Your task to perform on an android device: toggle notification dots Image 0: 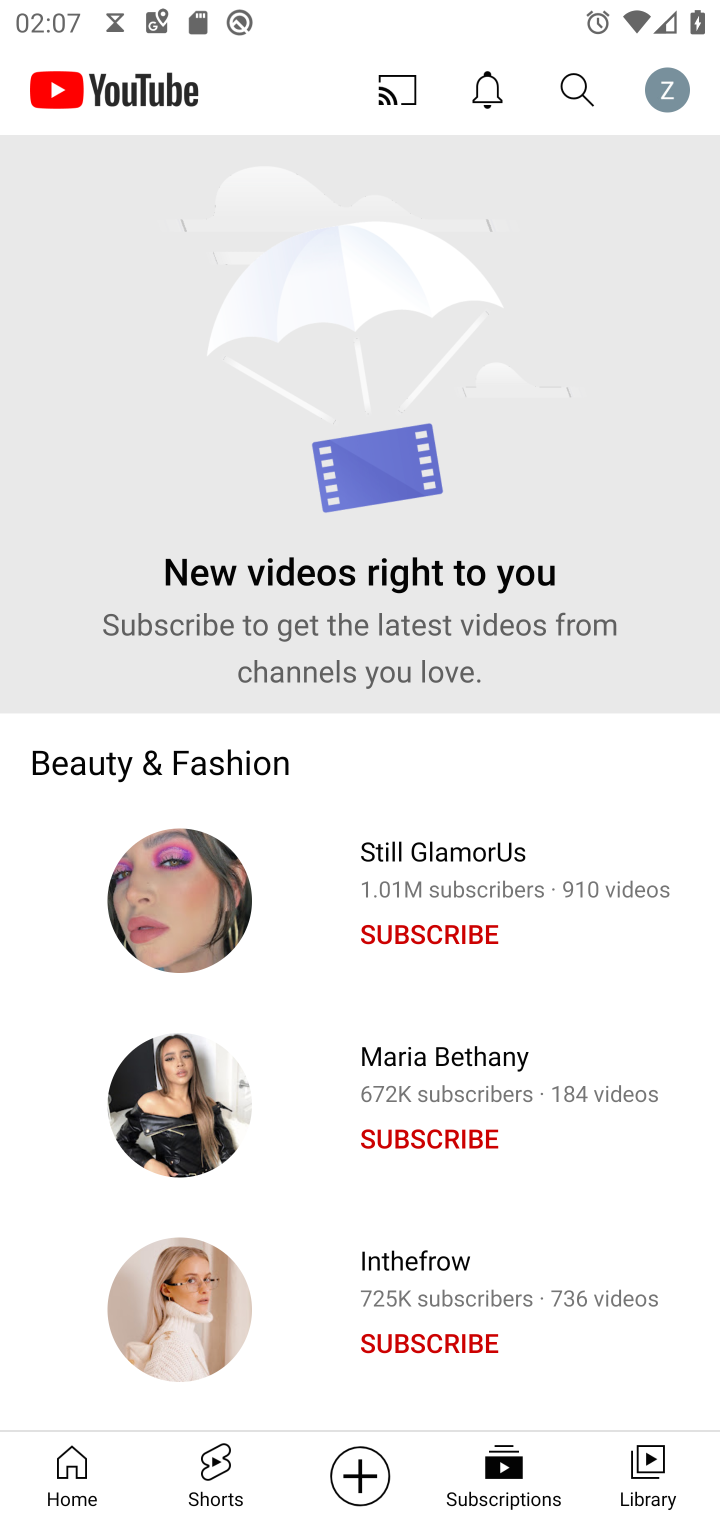
Step 0: press home button
Your task to perform on an android device: toggle notification dots Image 1: 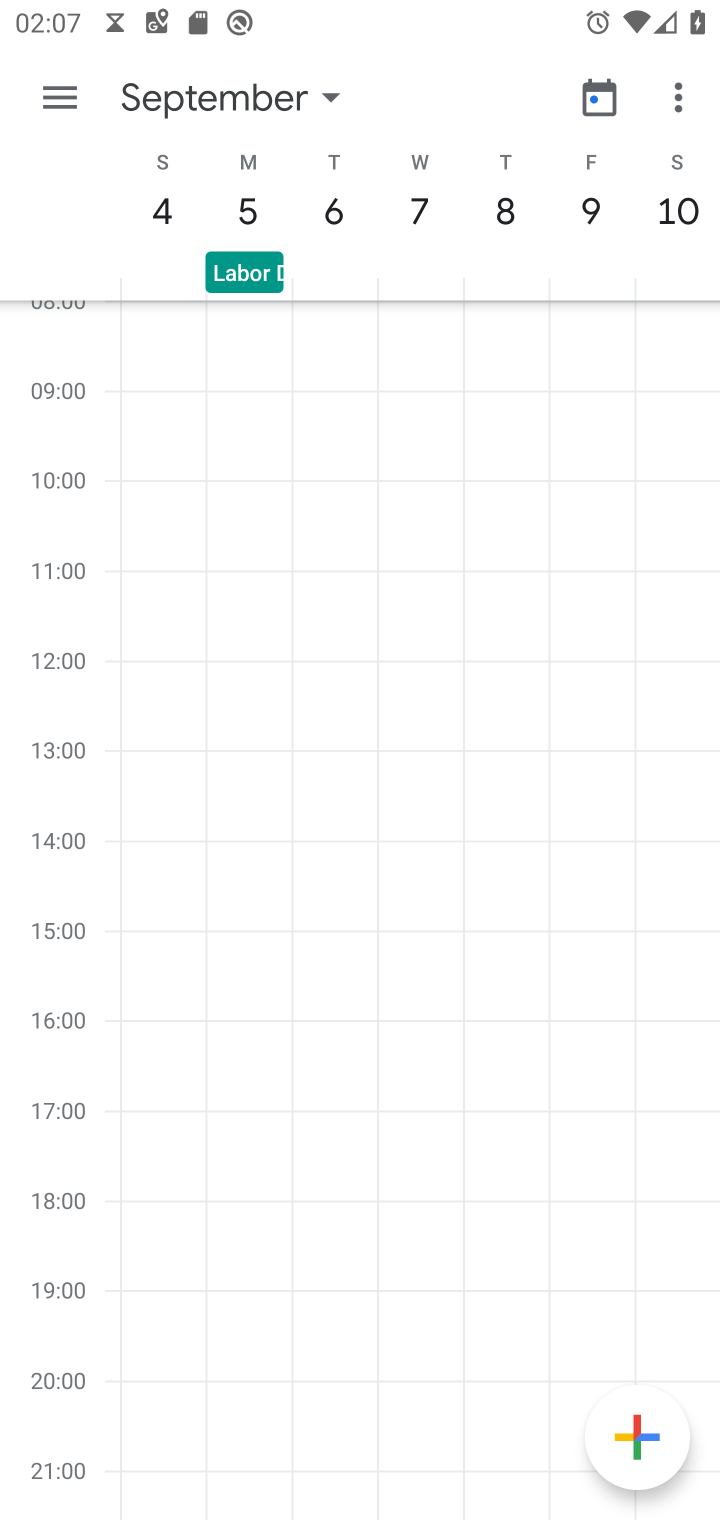
Step 1: press home button
Your task to perform on an android device: toggle notification dots Image 2: 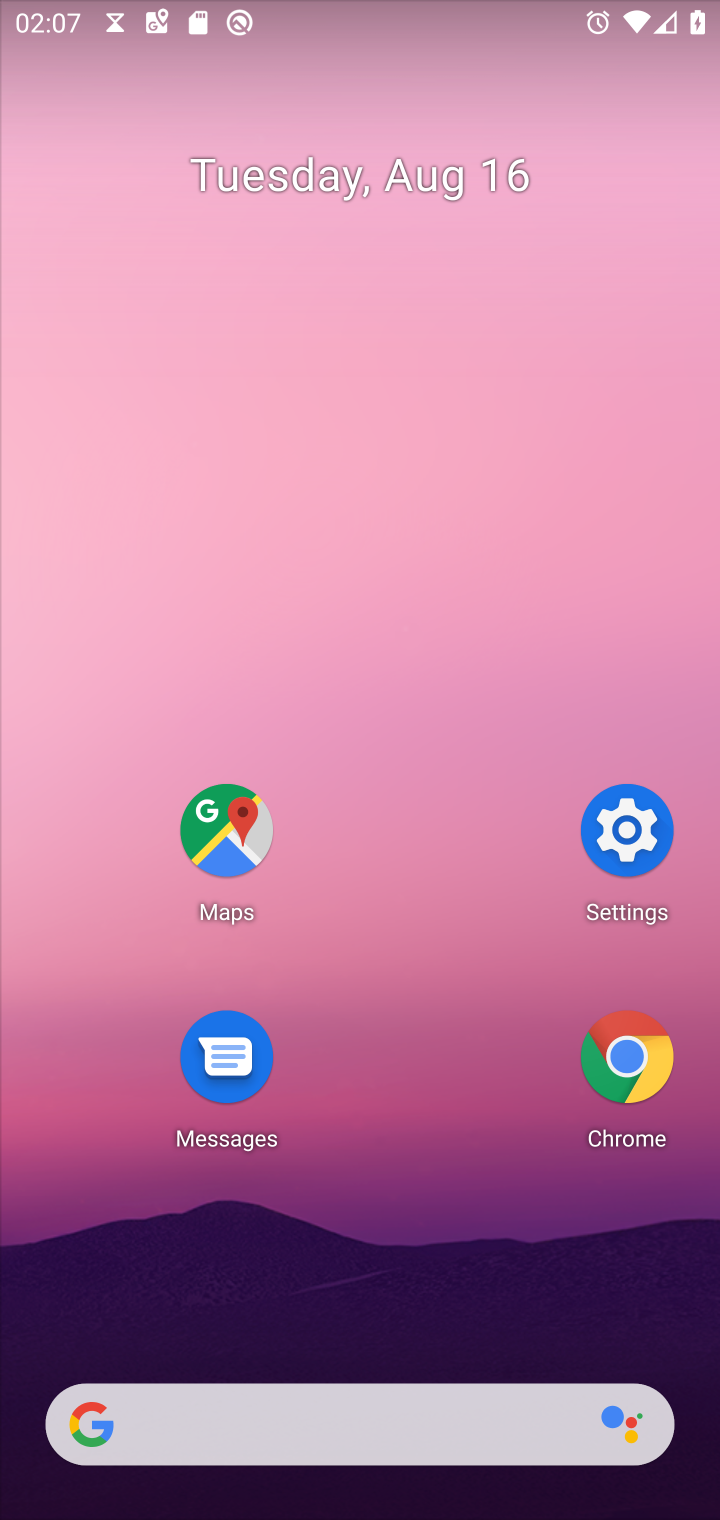
Step 2: click (622, 830)
Your task to perform on an android device: toggle notification dots Image 3: 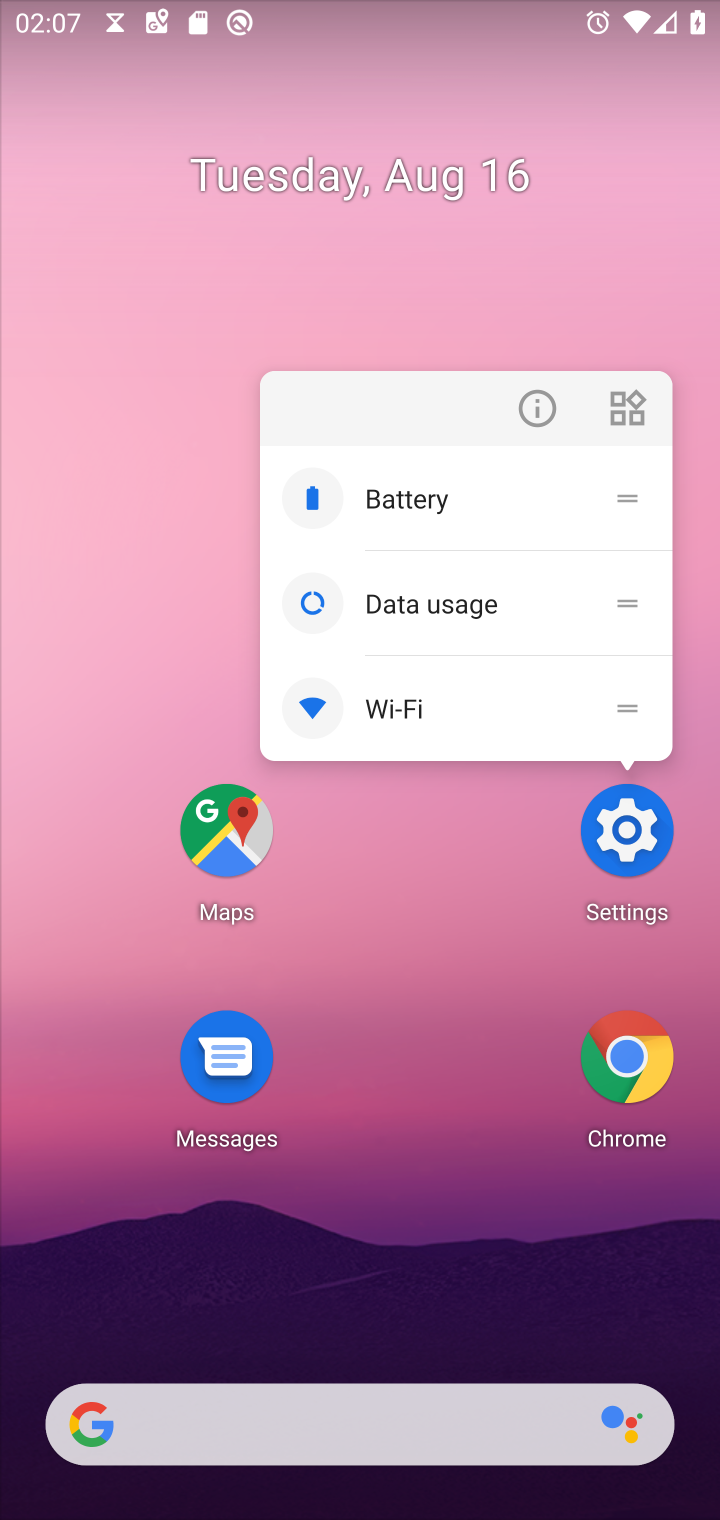
Step 3: click (622, 844)
Your task to perform on an android device: toggle notification dots Image 4: 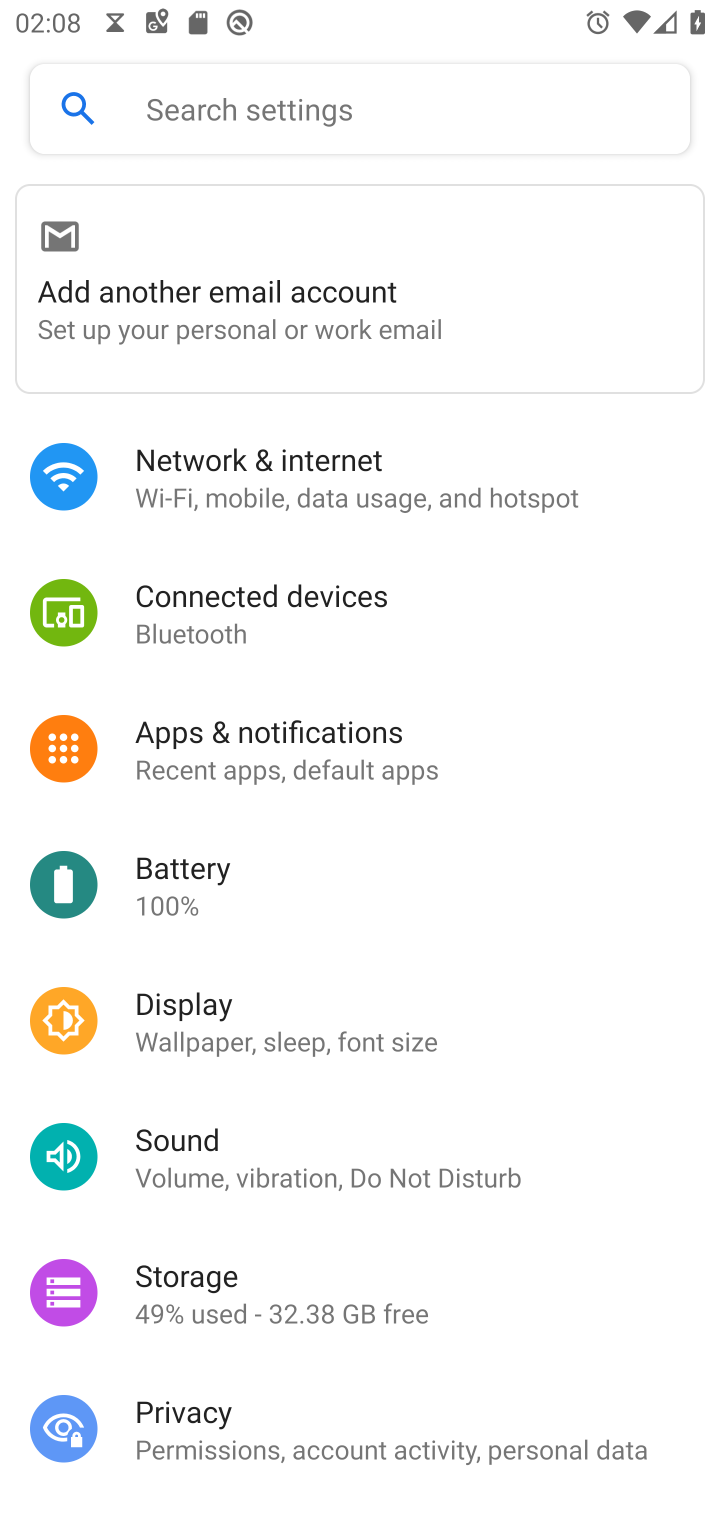
Step 4: drag from (513, 1303) to (640, 387)
Your task to perform on an android device: toggle notification dots Image 5: 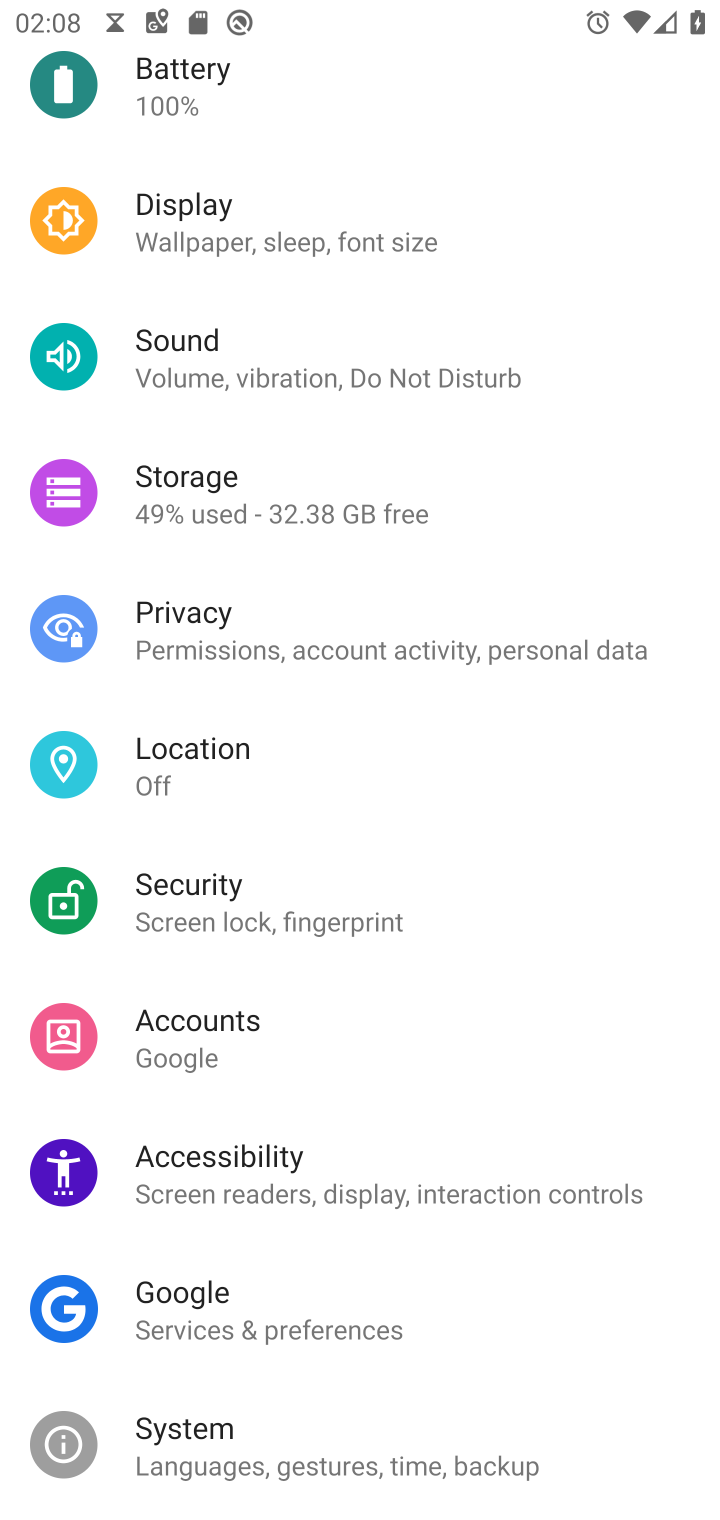
Step 5: drag from (598, 198) to (556, 1149)
Your task to perform on an android device: toggle notification dots Image 6: 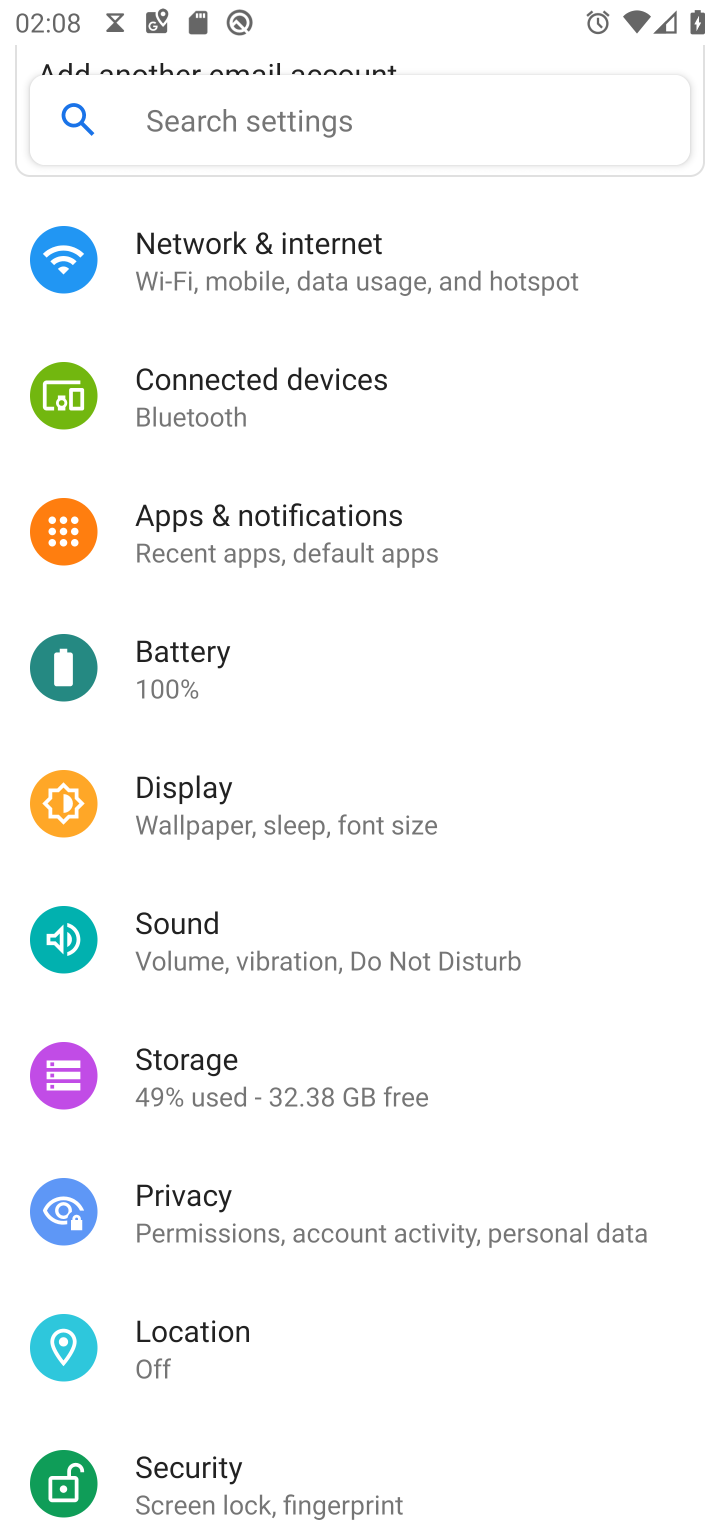
Step 6: click (293, 371)
Your task to perform on an android device: toggle notification dots Image 7: 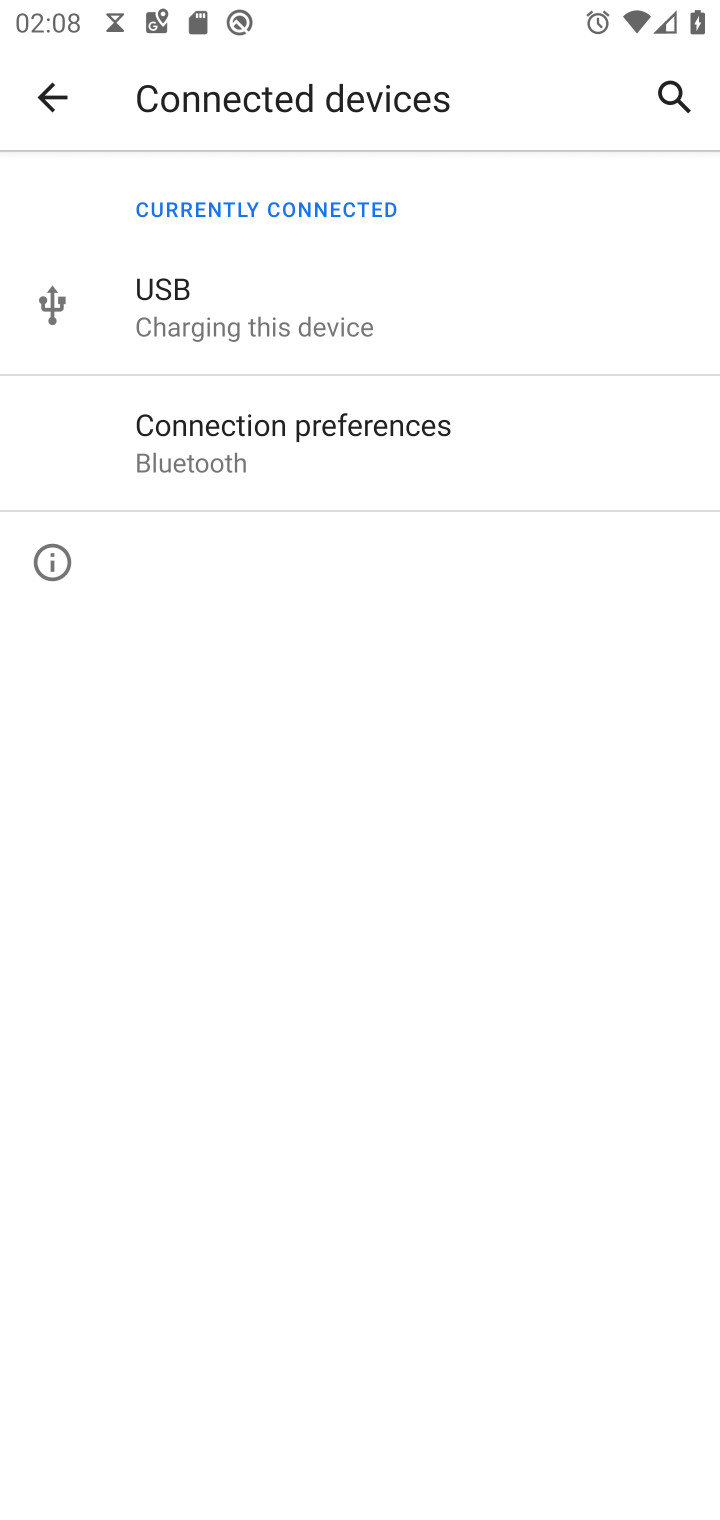
Step 7: press back button
Your task to perform on an android device: toggle notification dots Image 8: 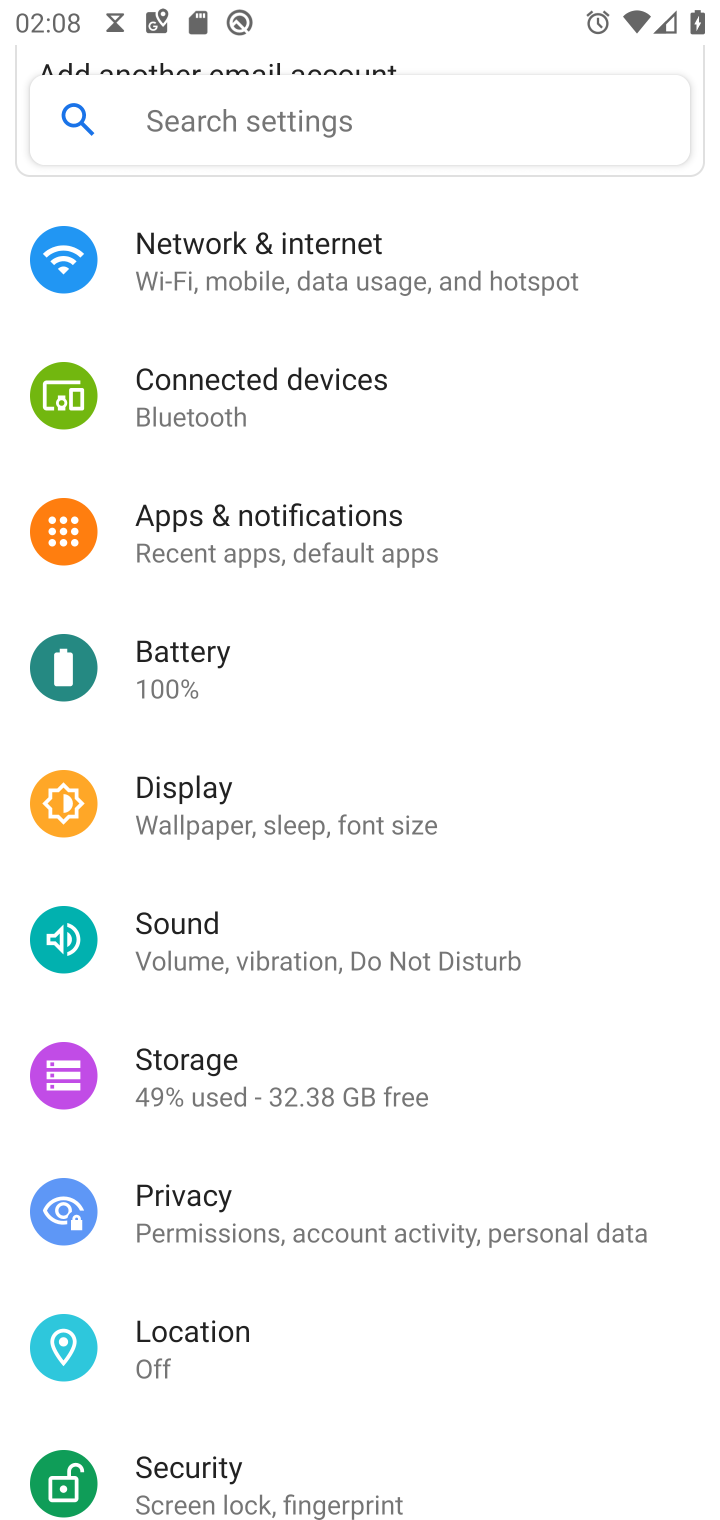
Step 8: click (247, 540)
Your task to perform on an android device: toggle notification dots Image 9: 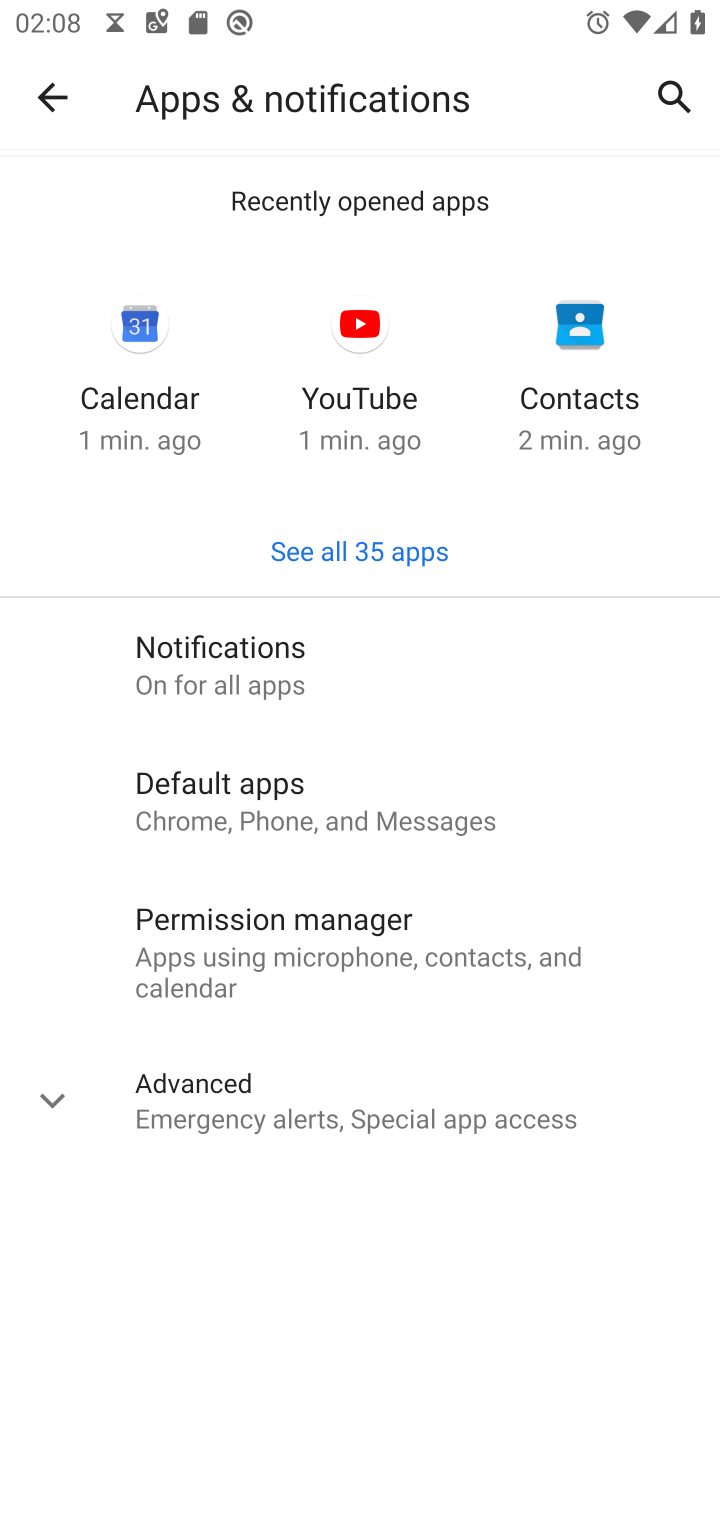
Step 9: click (275, 651)
Your task to perform on an android device: toggle notification dots Image 10: 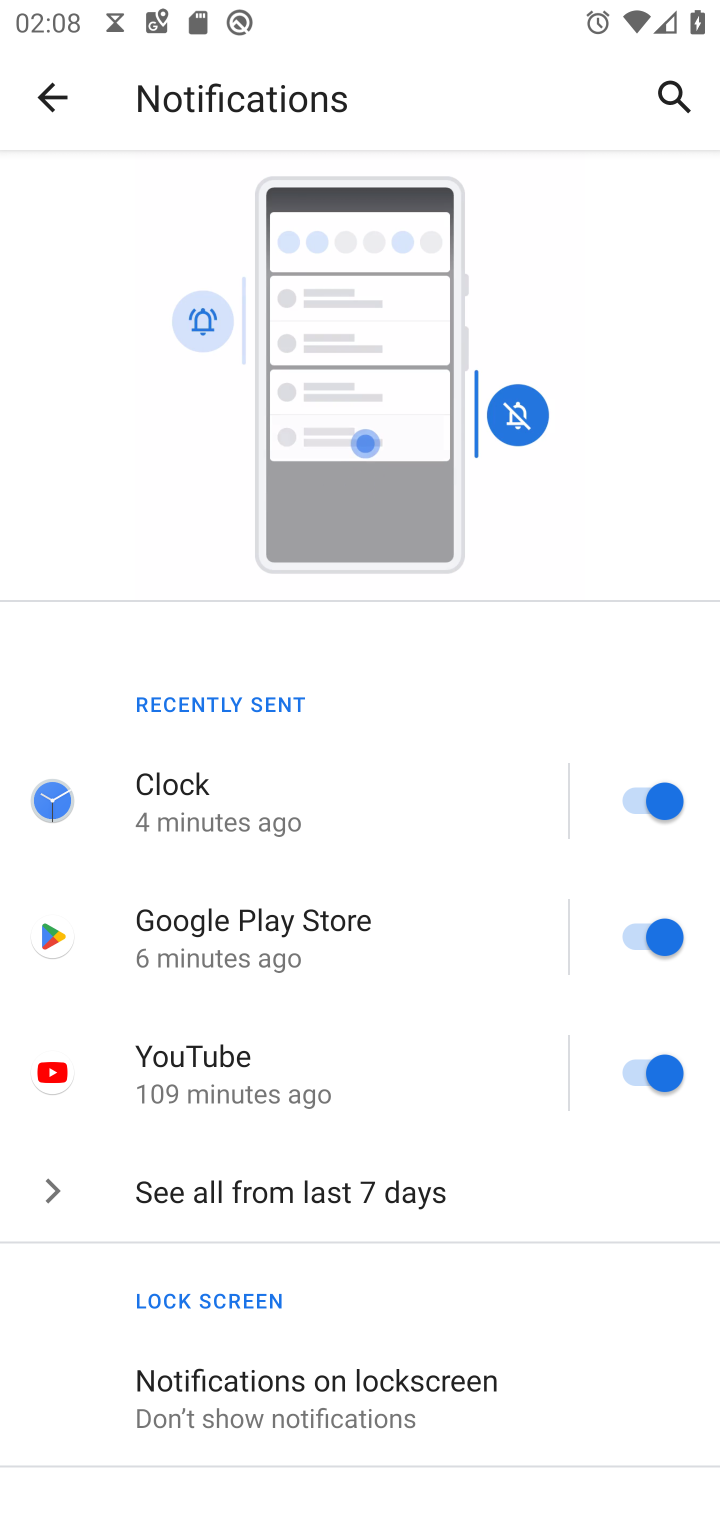
Step 10: drag from (428, 1294) to (690, 292)
Your task to perform on an android device: toggle notification dots Image 11: 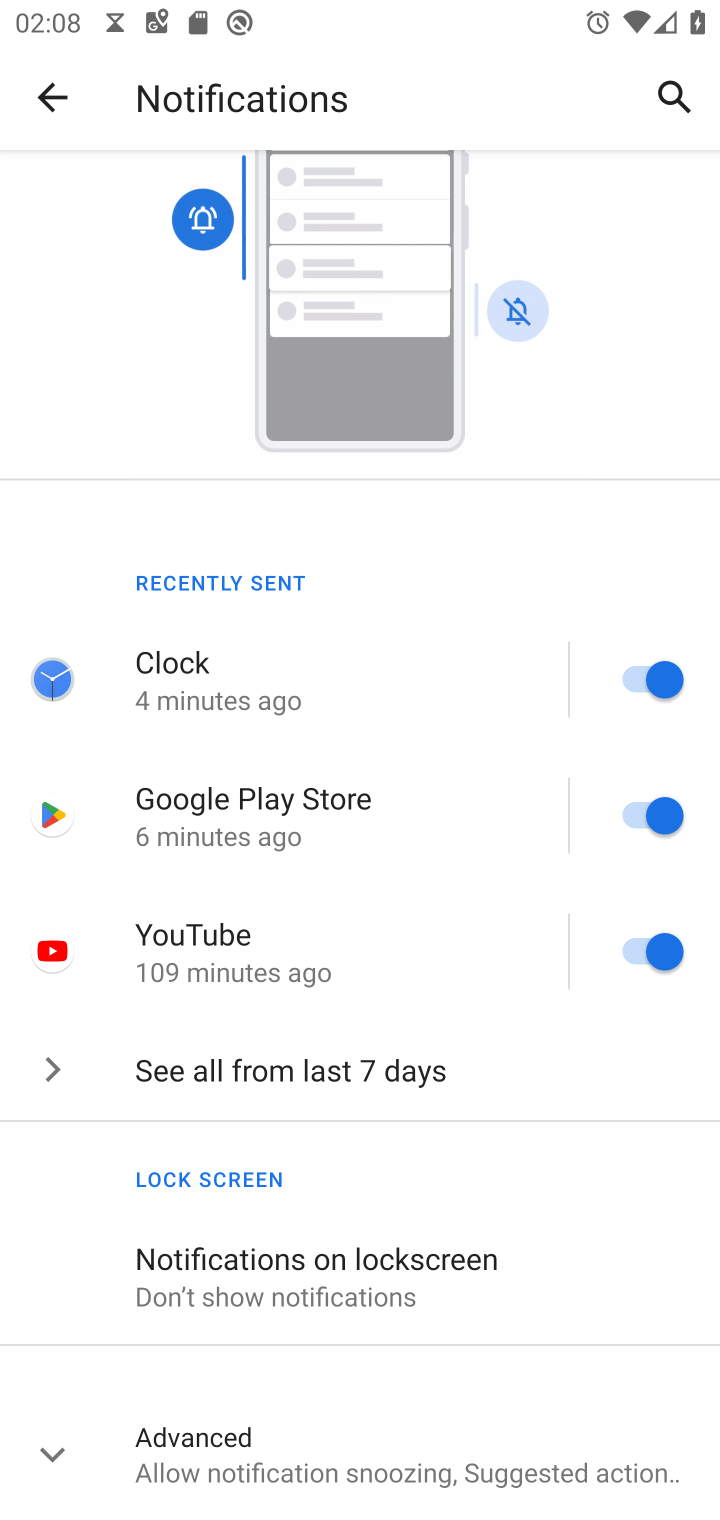
Step 11: click (332, 1422)
Your task to perform on an android device: toggle notification dots Image 12: 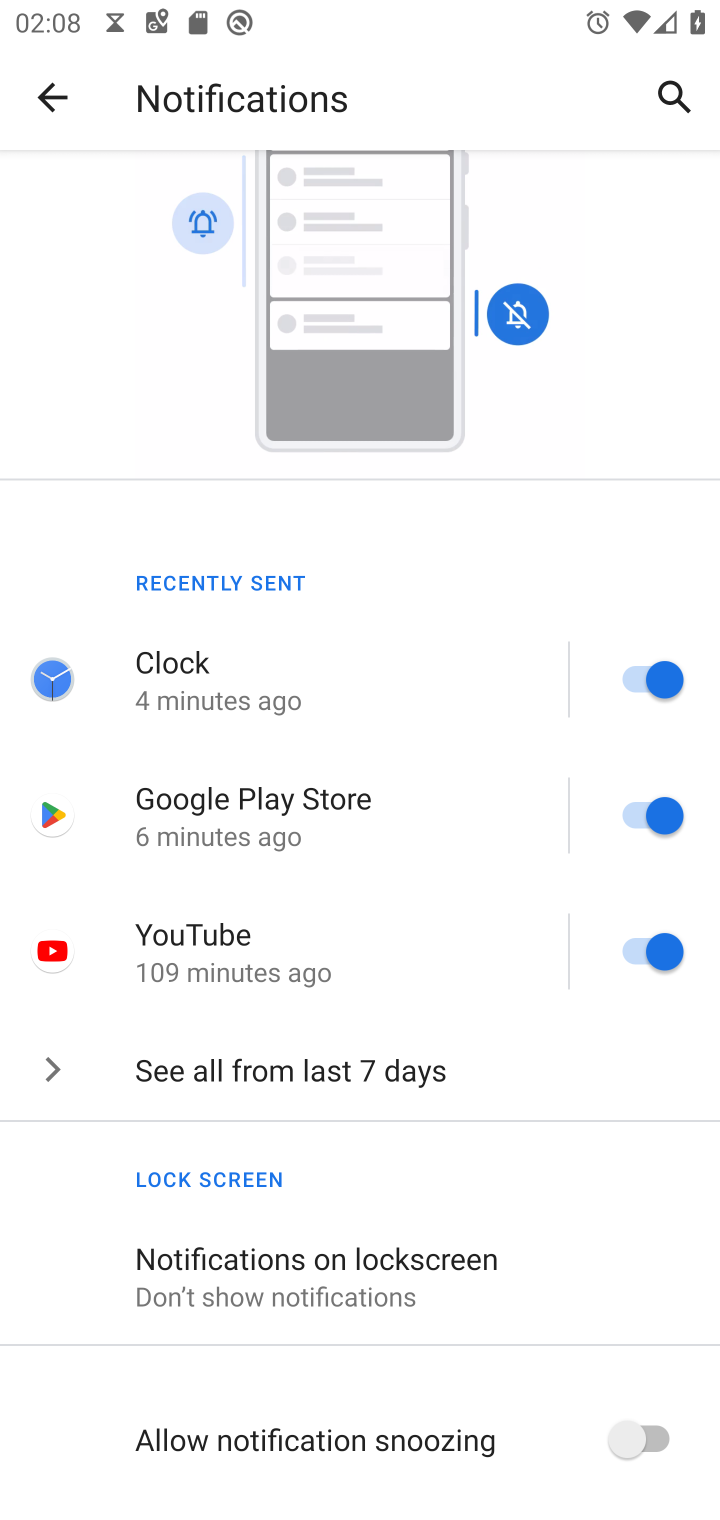
Step 12: drag from (421, 1262) to (625, 359)
Your task to perform on an android device: toggle notification dots Image 13: 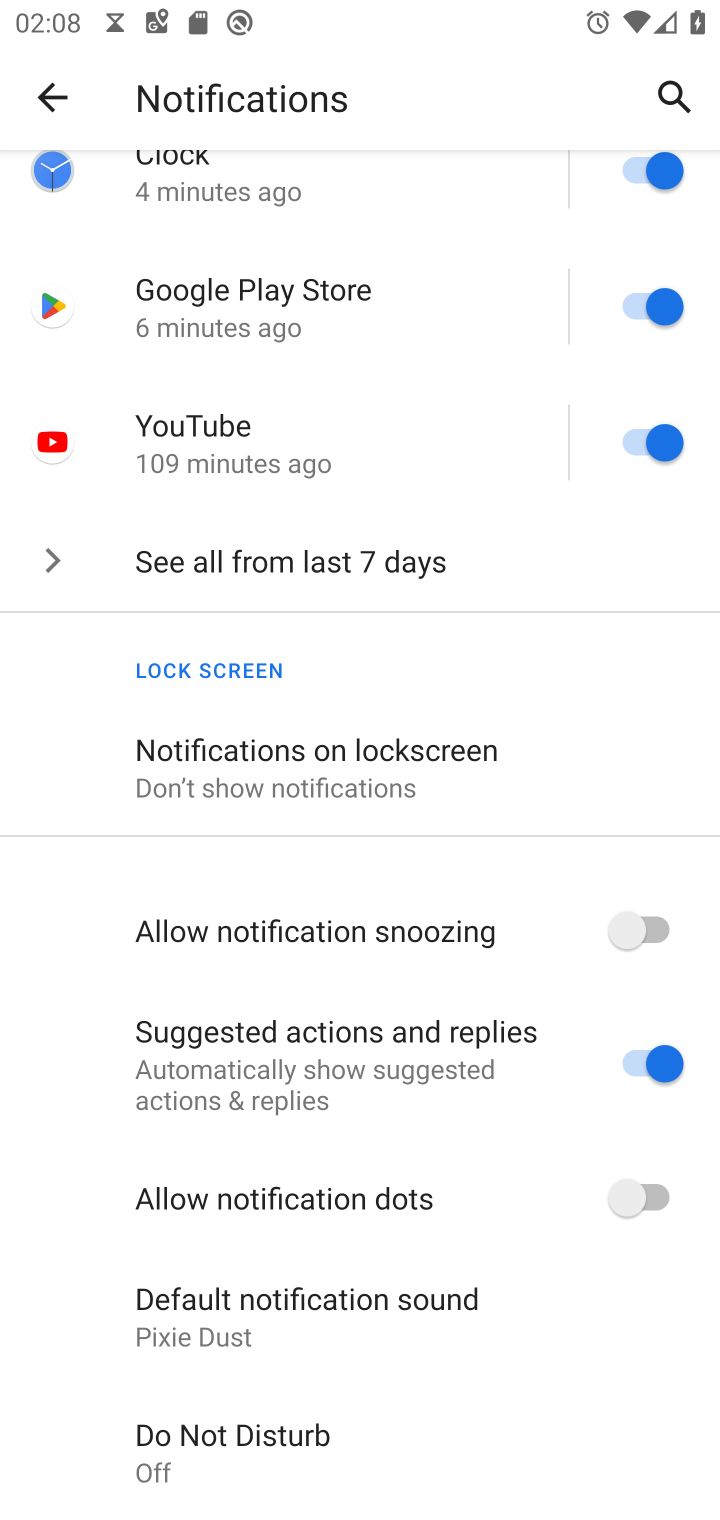
Step 13: click (682, 1193)
Your task to perform on an android device: toggle notification dots Image 14: 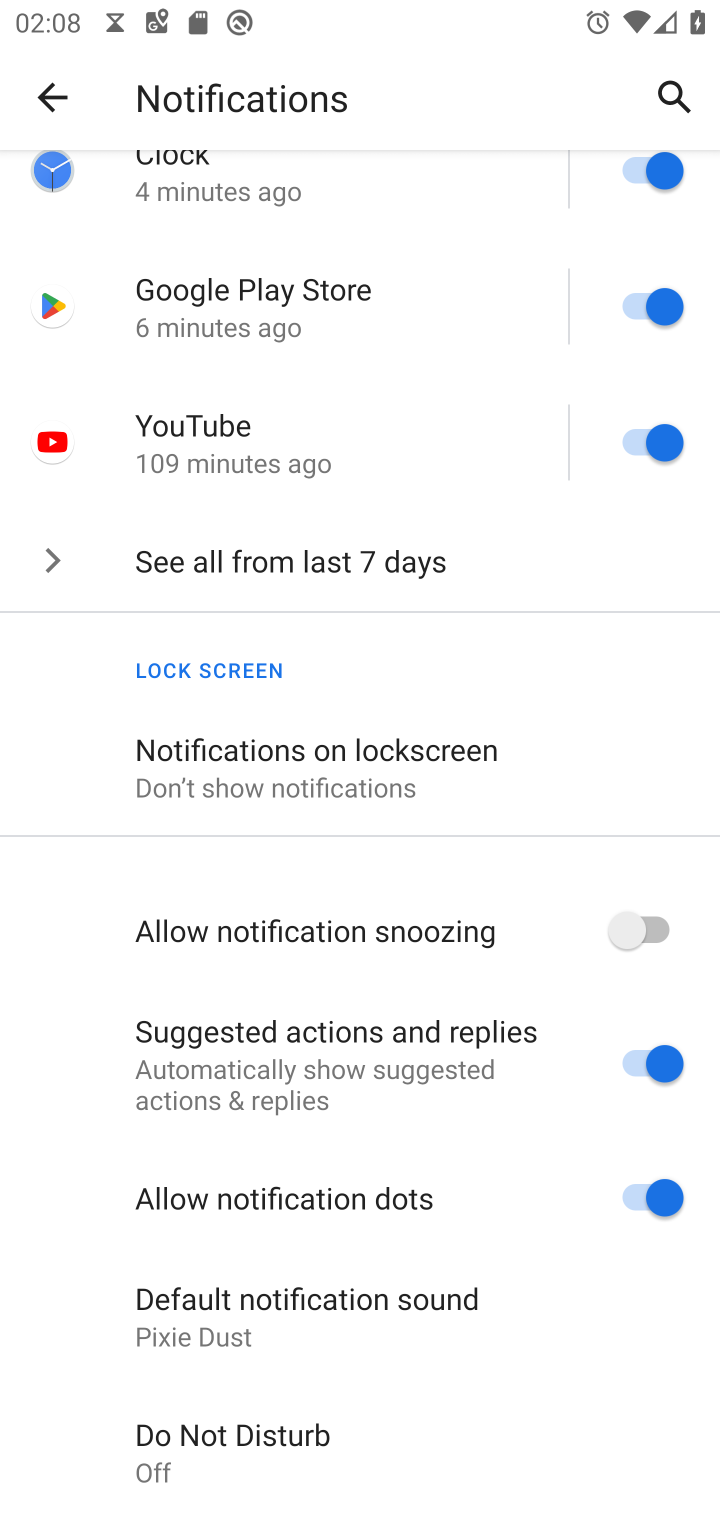
Step 14: task complete